Your task to perform on an android device: manage bookmarks in the chrome app Image 0: 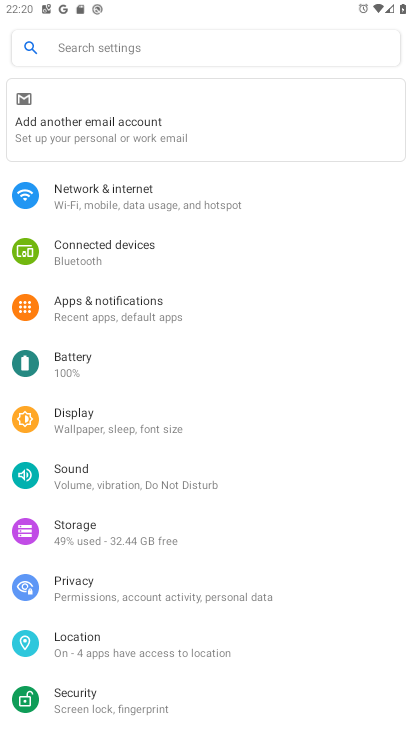
Step 0: press home button
Your task to perform on an android device: manage bookmarks in the chrome app Image 1: 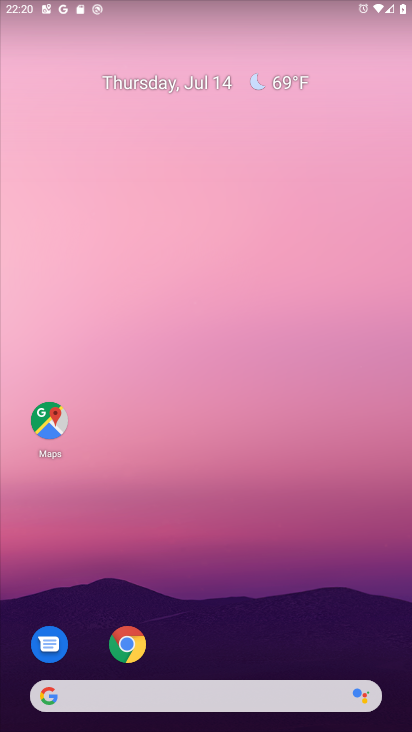
Step 1: click (129, 650)
Your task to perform on an android device: manage bookmarks in the chrome app Image 2: 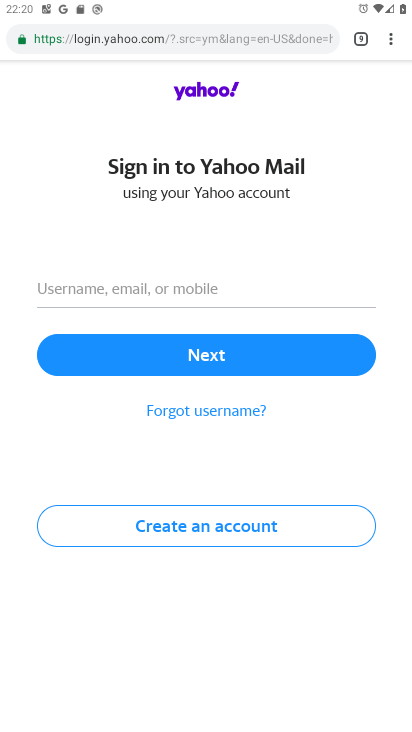
Step 2: click (389, 28)
Your task to perform on an android device: manage bookmarks in the chrome app Image 3: 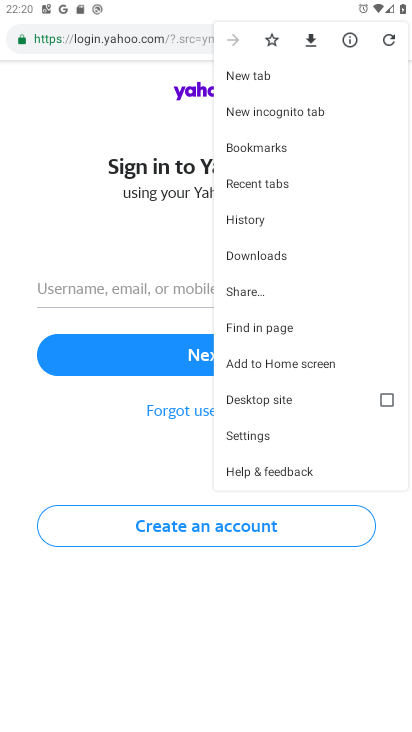
Step 3: click (317, 156)
Your task to perform on an android device: manage bookmarks in the chrome app Image 4: 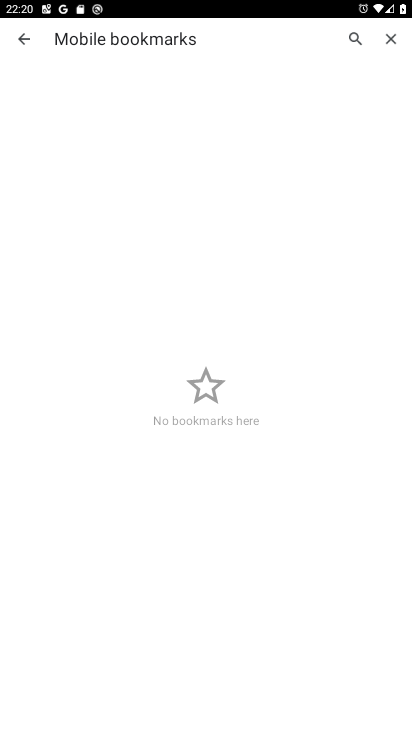
Step 4: task complete